Your task to perform on an android device: Go to Yahoo.com Image 0: 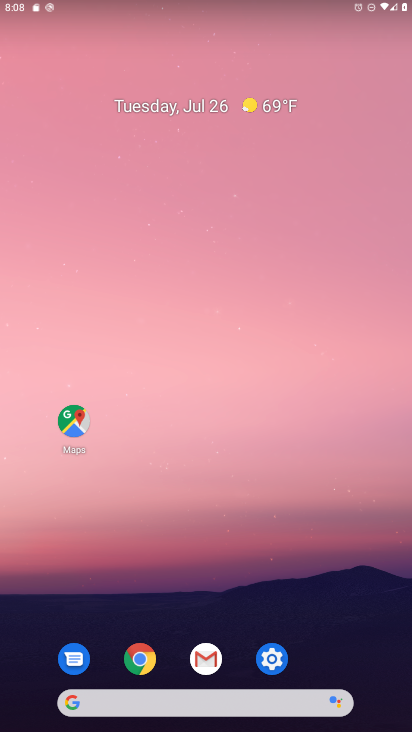
Step 0: click (146, 659)
Your task to perform on an android device: Go to Yahoo.com Image 1: 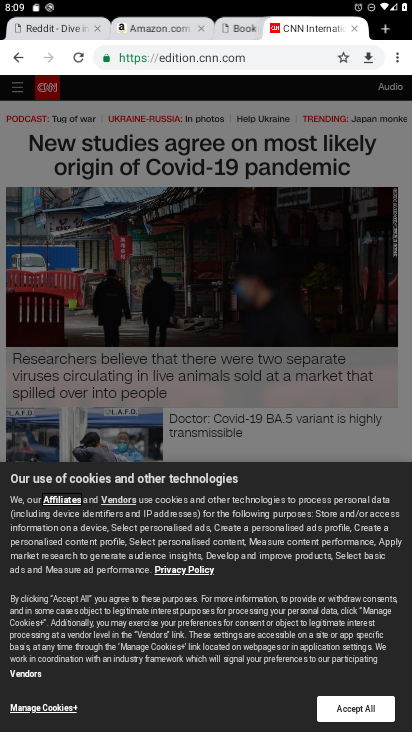
Step 1: click (385, 37)
Your task to perform on an android device: Go to Yahoo.com Image 2: 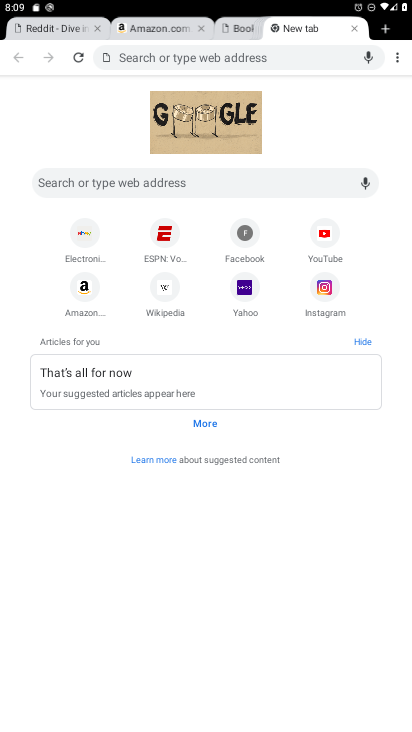
Step 2: click (250, 301)
Your task to perform on an android device: Go to Yahoo.com Image 3: 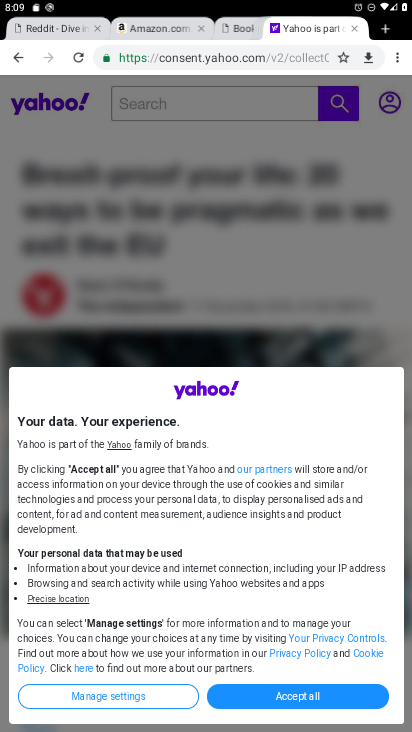
Step 3: click (309, 698)
Your task to perform on an android device: Go to Yahoo.com Image 4: 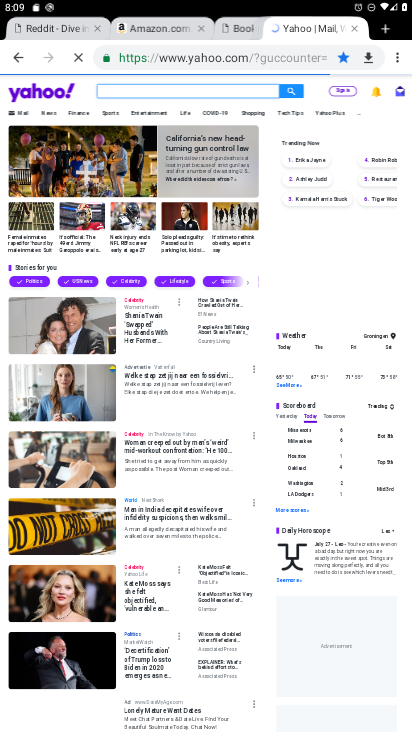
Step 4: task complete